Your task to perform on an android device: turn on airplane mode Image 0: 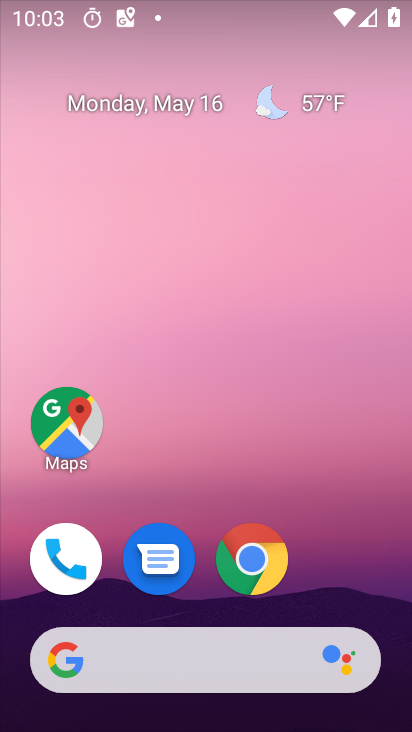
Step 0: drag from (290, 51) to (295, 540)
Your task to perform on an android device: turn on airplane mode Image 1: 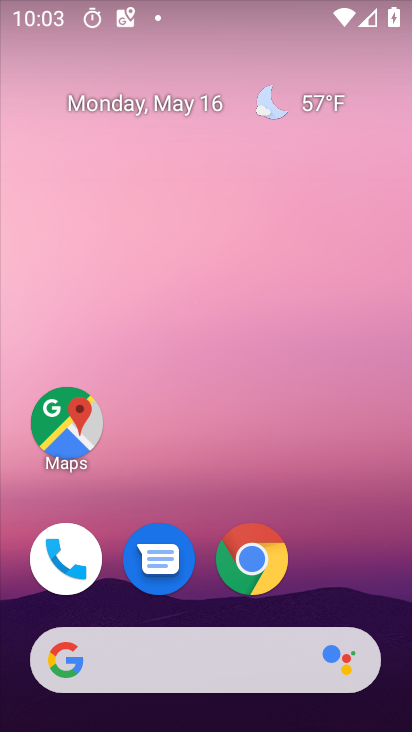
Step 1: drag from (280, 4) to (327, 467)
Your task to perform on an android device: turn on airplane mode Image 2: 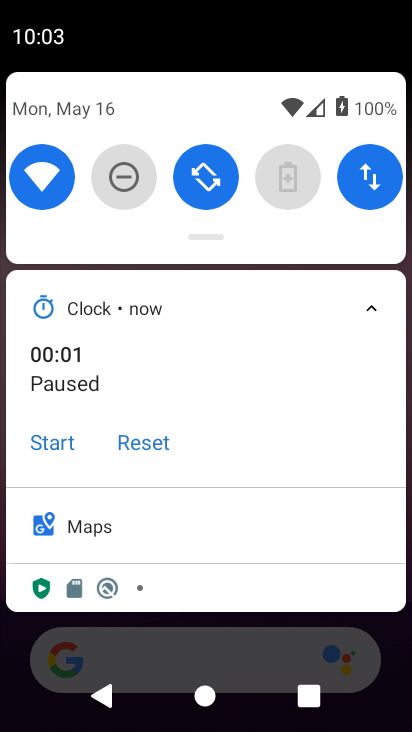
Step 2: drag from (283, 238) to (266, 642)
Your task to perform on an android device: turn on airplane mode Image 3: 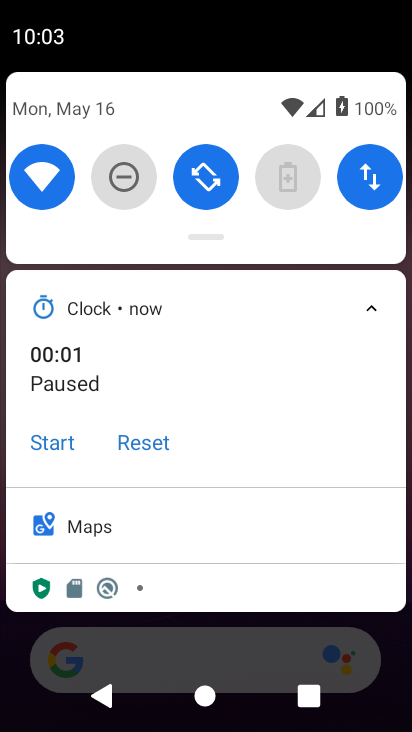
Step 3: drag from (252, 238) to (224, 671)
Your task to perform on an android device: turn on airplane mode Image 4: 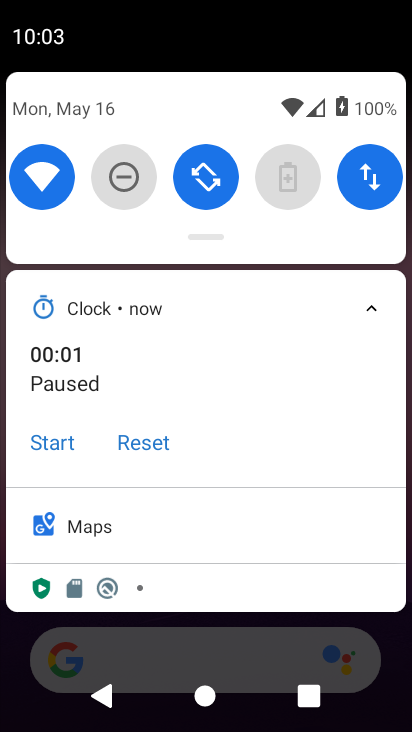
Step 4: drag from (244, 222) to (258, 622)
Your task to perform on an android device: turn on airplane mode Image 5: 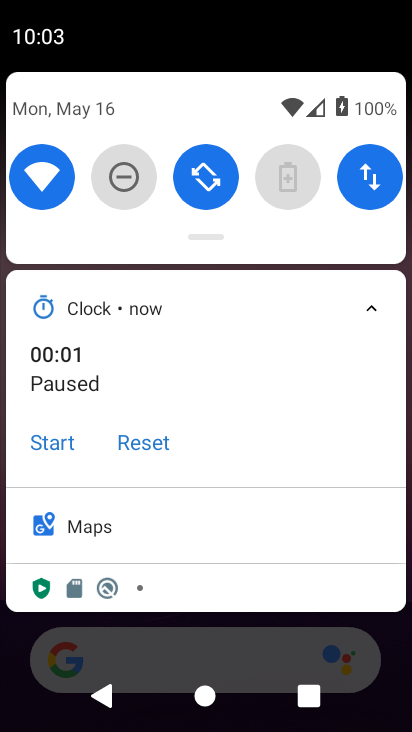
Step 5: drag from (276, 233) to (280, 610)
Your task to perform on an android device: turn on airplane mode Image 6: 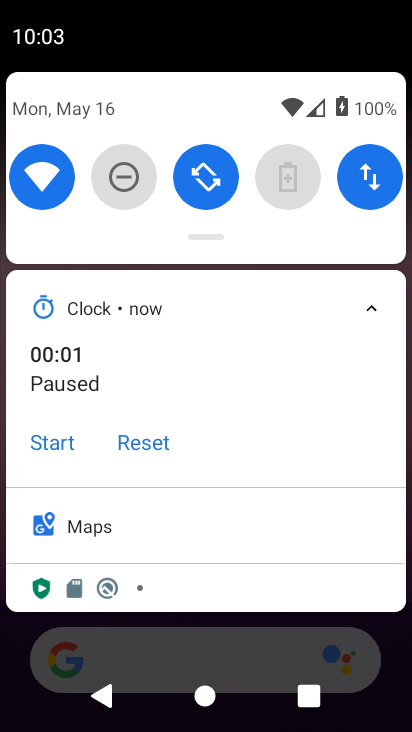
Step 6: drag from (163, 221) to (276, 675)
Your task to perform on an android device: turn on airplane mode Image 7: 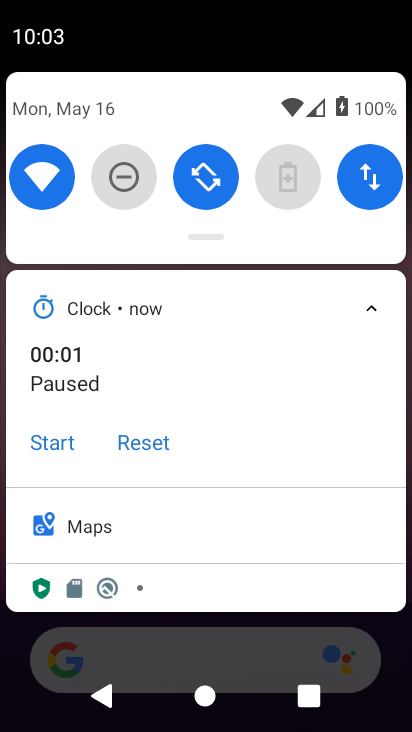
Step 7: drag from (241, 195) to (277, 543)
Your task to perform on an android device: turn on airplane mode Image 8: 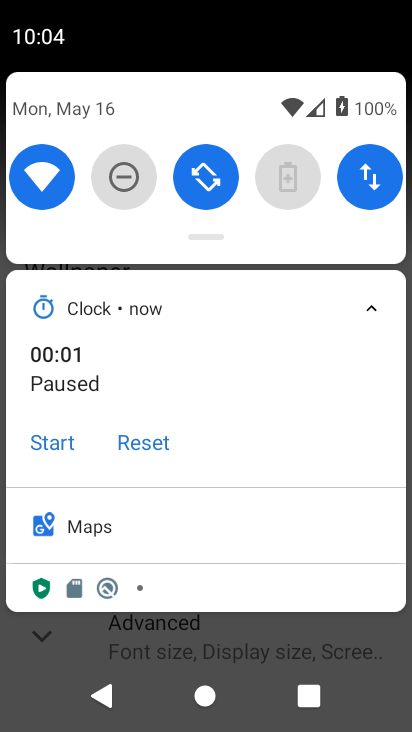
Step 8: drag from (375, 207) to (16, 212)
Your task to perform on an android device: turn on airplane mode Image 9: 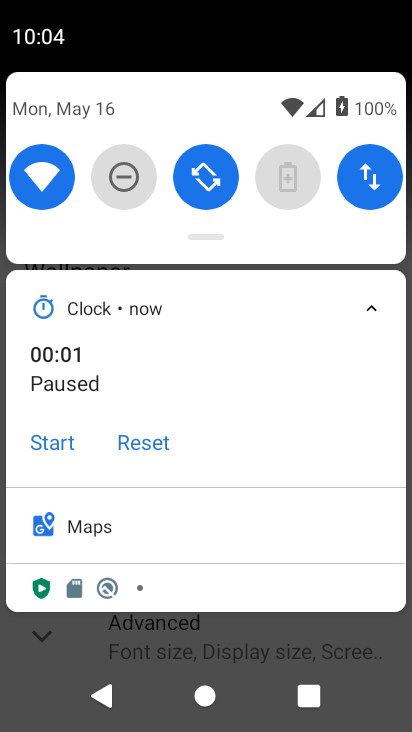
Step 9: drag from (328, 204) to (155, 321)
Your task to perform on an android device: turn on airplane mode Image 10: 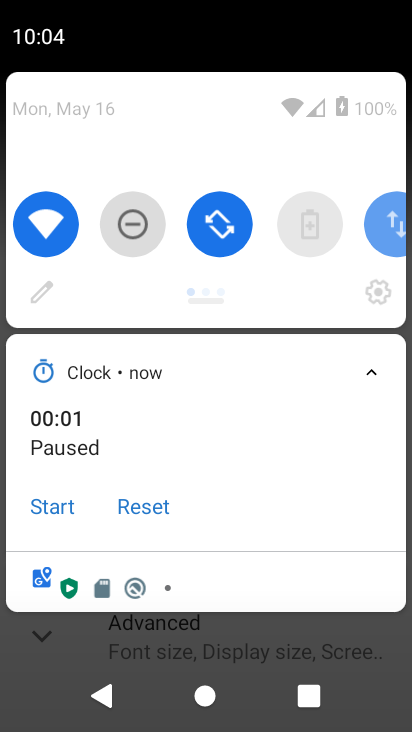
Step 10: drag from (234, 233) to (316, 590)
Your task to perform on an android device: turn on airplane mode Image 11: 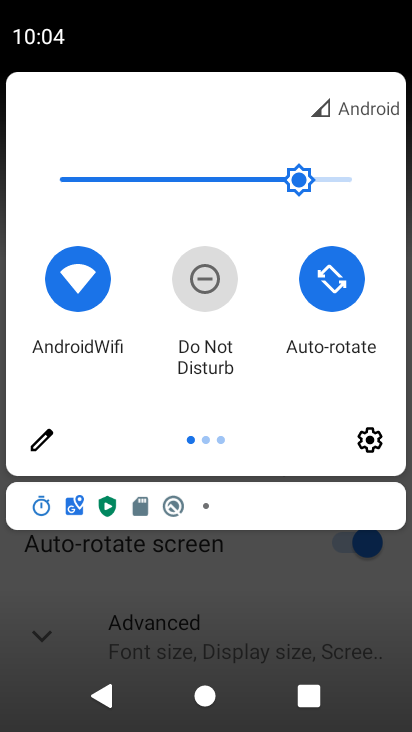
Step 11: drag from (339, 358) to (44, 358)
Your task to perform on an android device: turn on airplane mode Image 12: 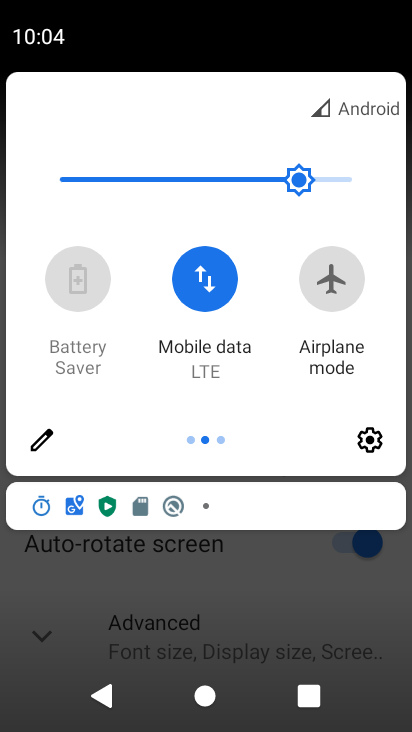
Step 12: click (326, 289)
Your task to perform on an android device: turn on airplane mode Image 13: 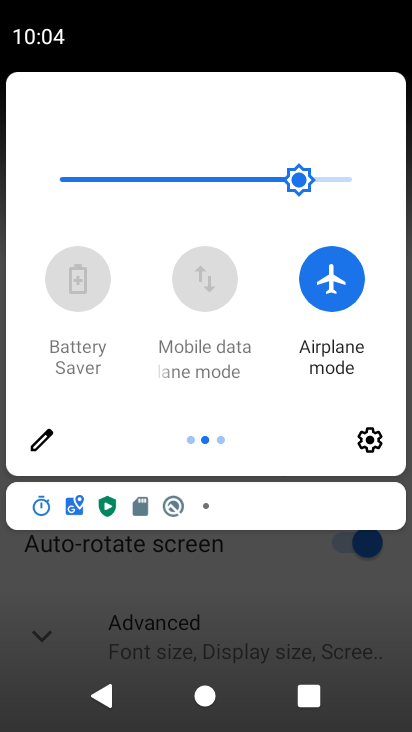
Step 13: task complete